Your task to perform on an android device: Go to battery settings Image 0: 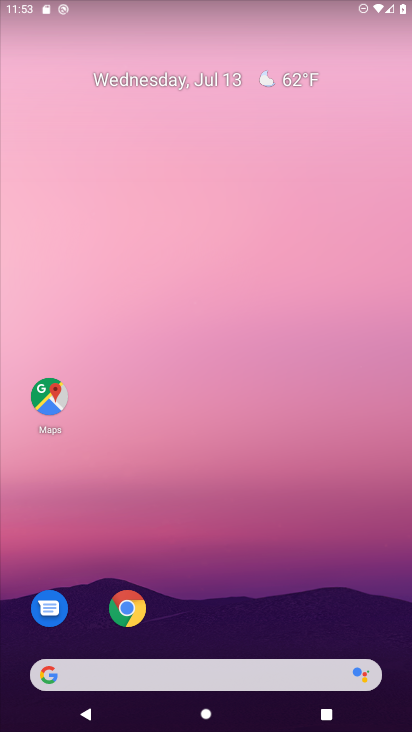
Step 0: drag from (237, 698) to (225, 148)
Your task to perform on an android device: Go to battery settings Image 1: 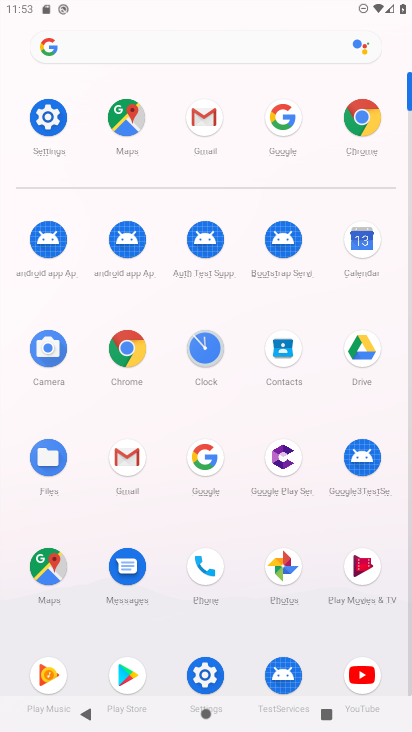
Step 1: click (45, 112)
Your task to perform on an android device: Go to battery settings Image 2: 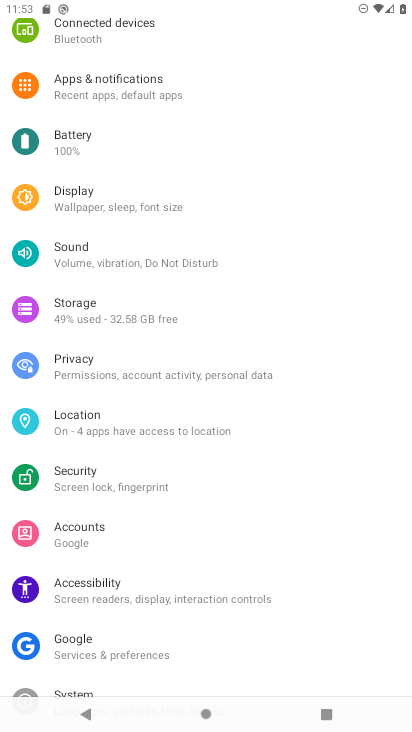
Step 2: click (73, 139)
Your task to perform on an android device: Go to battery settings Image 3: 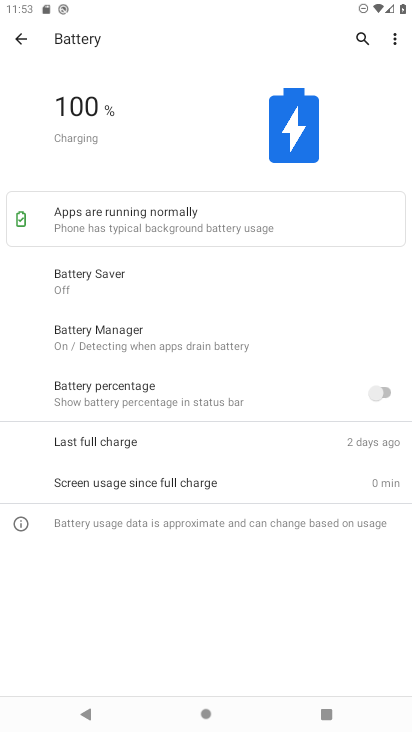
Step 3: task complete